Your task to perform on an android device: Open battery settings Image 0: 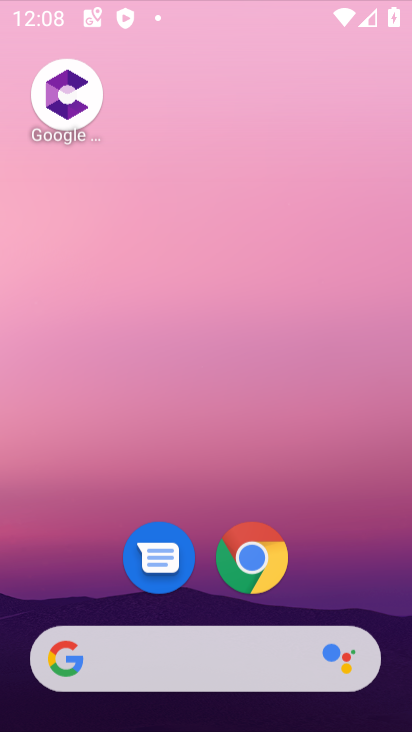
Step 0: click (269, 146)
Your task to perform on an android device: Open battery settings Image 1: 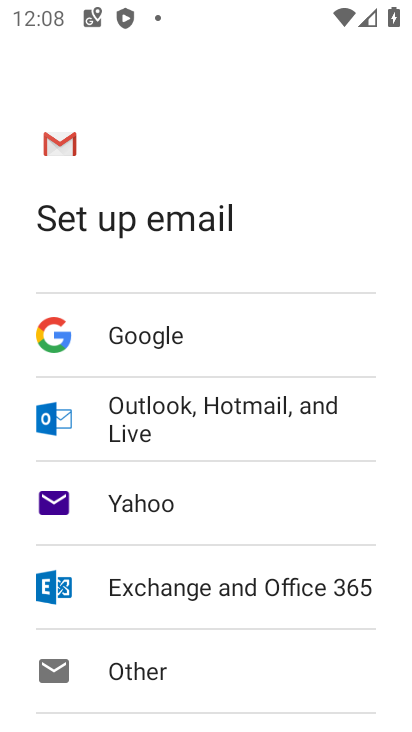
Step 1: press home button
Your task to perform on an android device: Open battery settings Image 2: 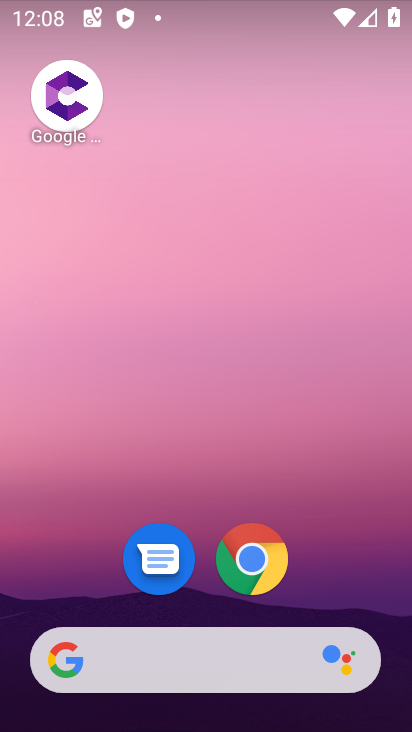
Step 2: drag from (207, 566) to (237, 172)
Your task to perform on an android device: Open battery settings Image 3: 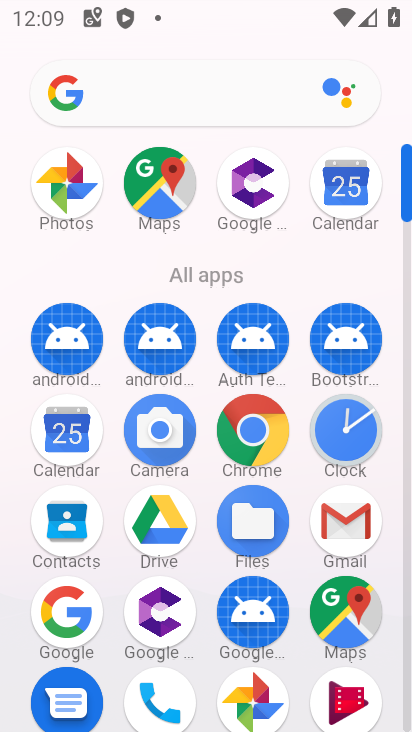
Step 3: drag from (217, 303) to (222, 2)
Your task to perform on an android device: Open battery settings Image 4: 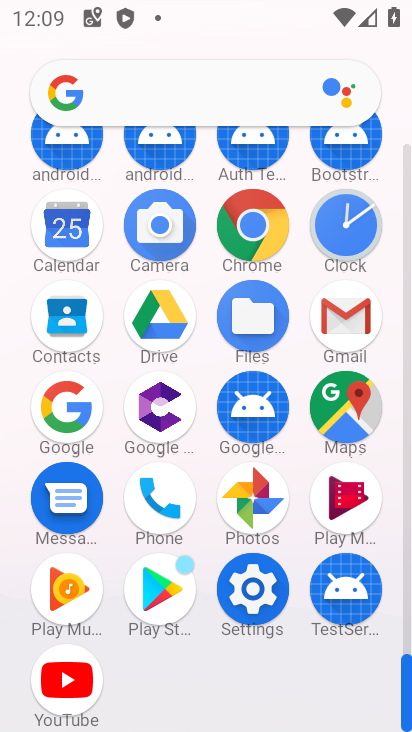
Step 4: click (268, 614)
Your task to perform on an android device: Open battery settings Image 5: 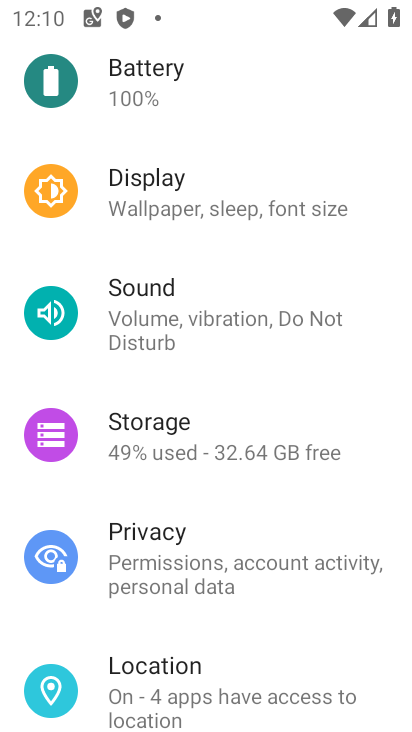
Step 5: click (176, 97)
Your task to perform on an android device: Open battery settings Image 6: 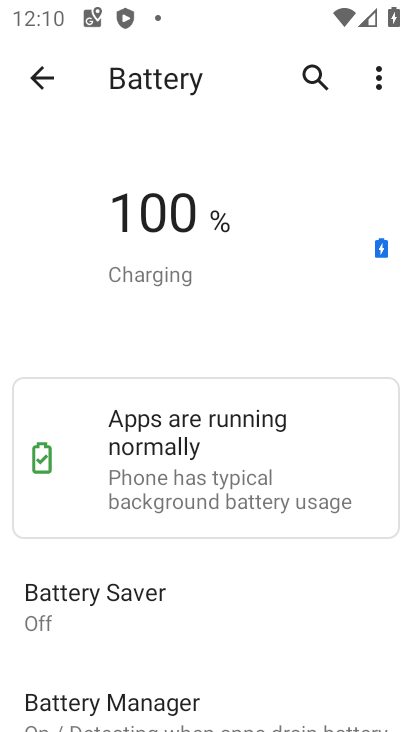
Step 6: task complete